Your task to perform on an android device: turn on improve location accuracy Image 0: 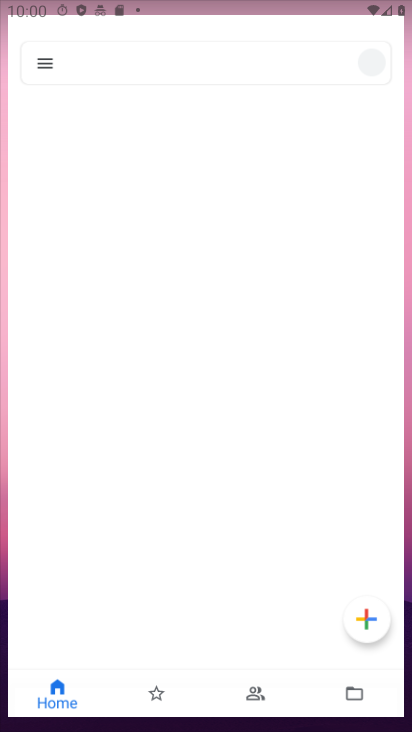
Step 0: drag from (223, 687) to (211, 117)
Your task to perform on an android device: turn on improve location accuracy Image 1: 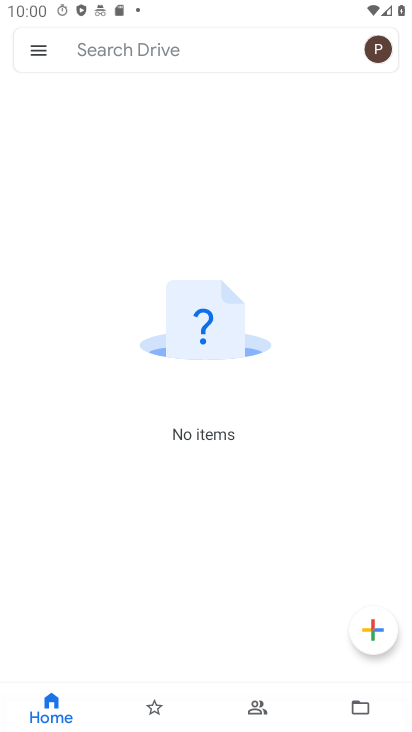
Step 1: click (33, 41)
Your task to perform on an android device: turn on improve location accuracy Image 2: 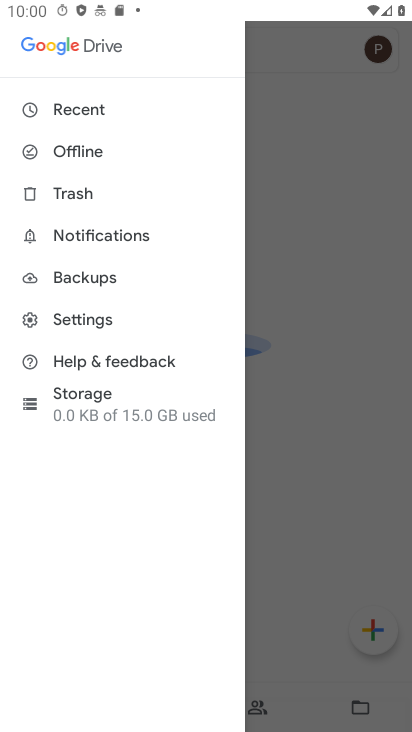
Step 2: press back button
Your task to perform on an android device: turn on improve location accuracy Image 3: 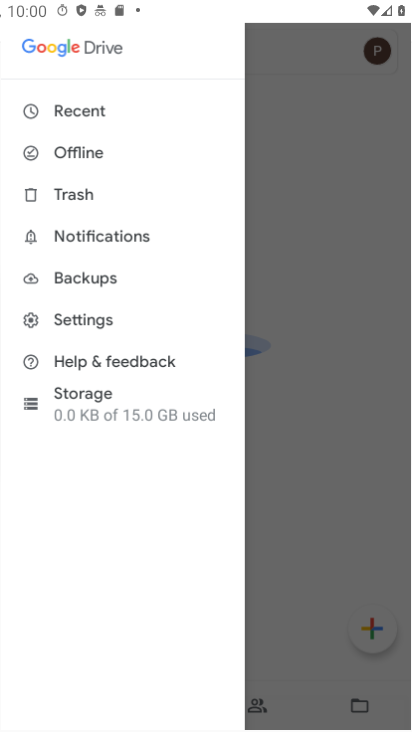
Step 3: press back button
Your task to perform on an android device: turn on improve location accuracy Image 4: 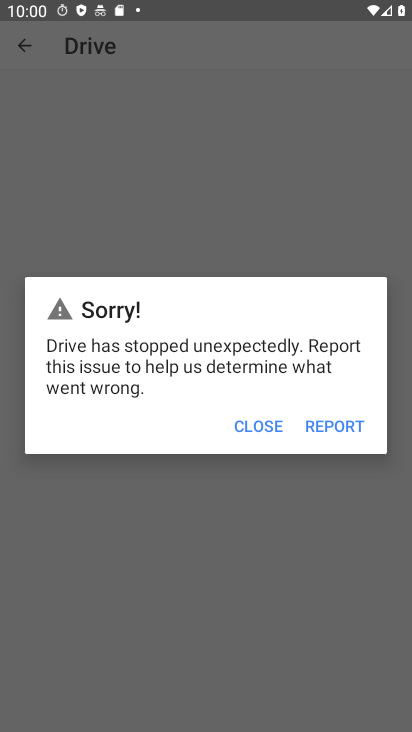
Step 4: press back button
Your task to perform on an android device: turn on improve location accuracy Image 5: 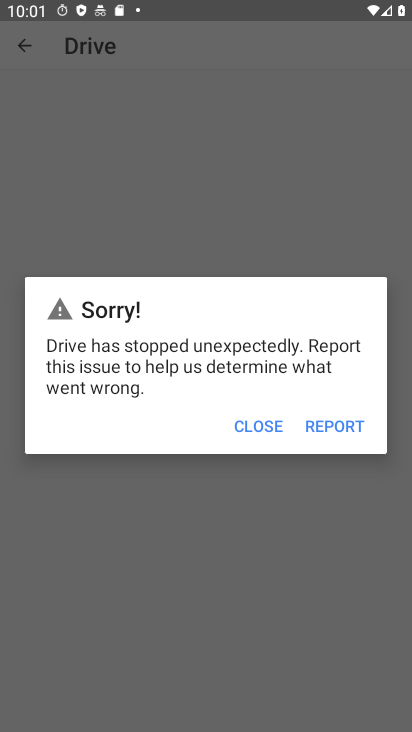
Step 5: click (254, 429)
Your task to perform on an android device: turn on improve location accuracy Image 6: 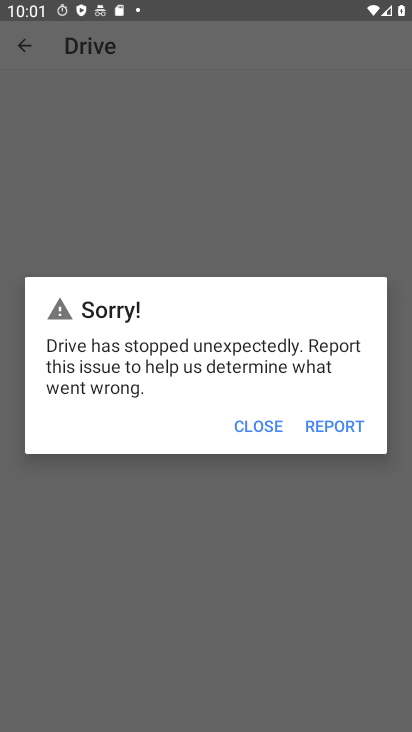
Step 6: click (263, 405)
Your task to perform on an android device: turn on improve location accuracy Image 7: 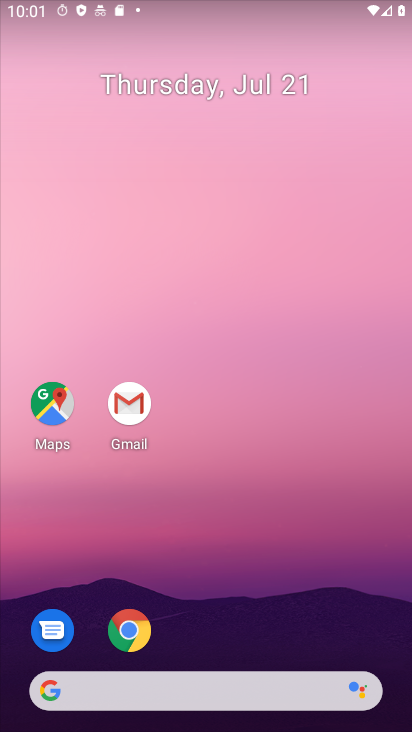
Step 7: drag from (232, 676) to (220, 166)
Your task to perform on an android device: turn on improve location accuracy Image 8: 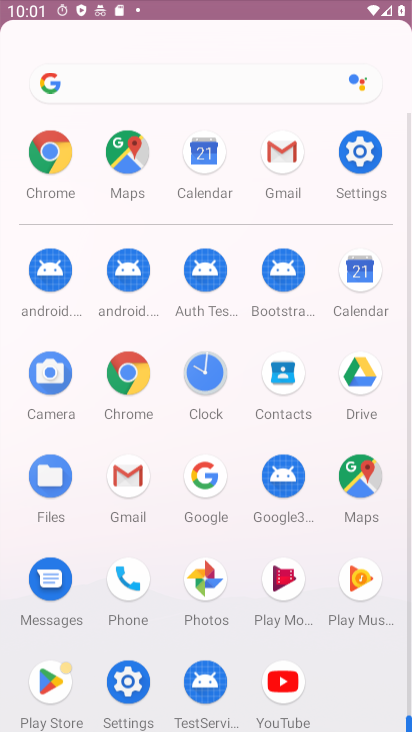
Step 8: drag from (324, 483) to (291, 295)
Your task to perform on an android device: turn on improve location accuracy Image 9: 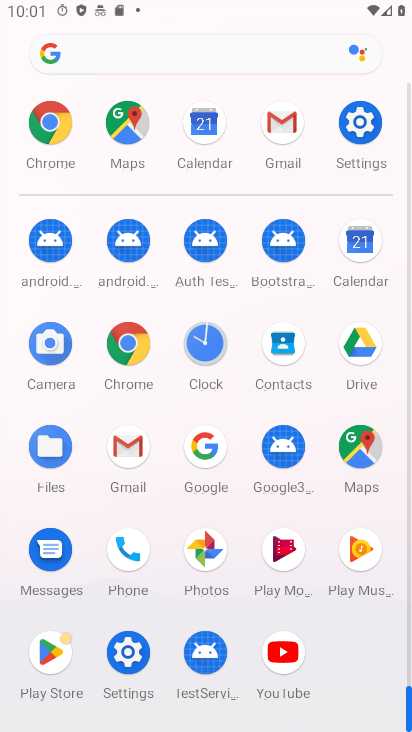
Step 9: click (369, 124)
Your task to perform on an android device: turn on improve location accuracy Image 10: 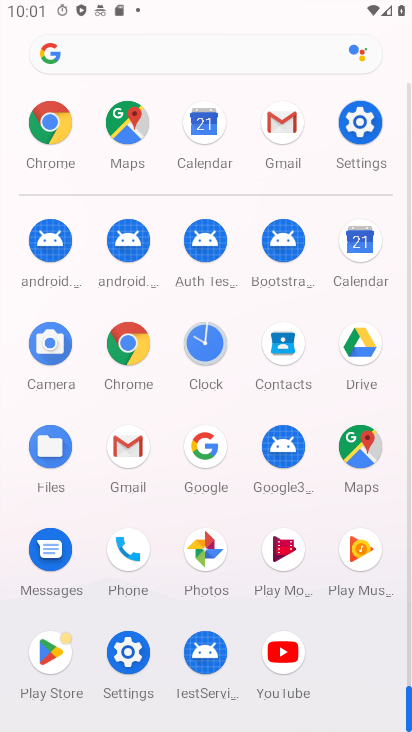
Step 10: click (369, 124)
Your task to perform on an android device: turn on improve location accuracy Image 11: 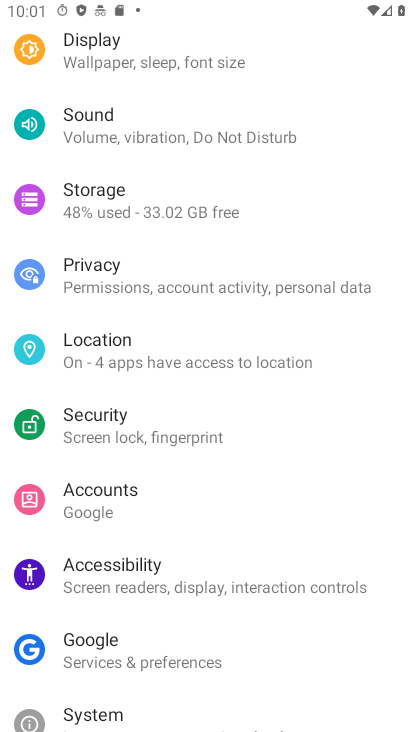
Step 11: drag from (137, 470) to (93, 106)
Your task to perform on an android device: turn on improve location accuracy Image 12: 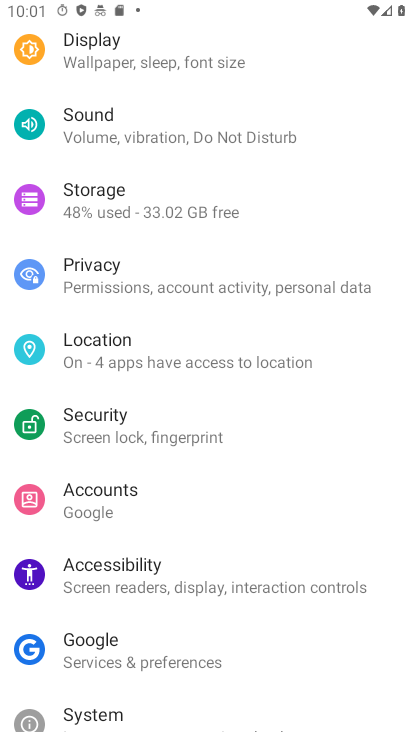
Step 12: click (110, 358)
Your task to perform on an android device: turn on improve location accuracy Image 13: 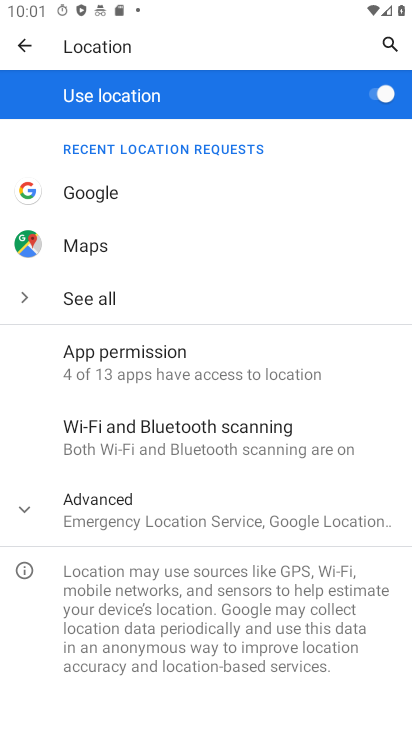
Step 13: click (104, 493)
Your task to perform on an android device: turn on improve location accuracy Image 14: 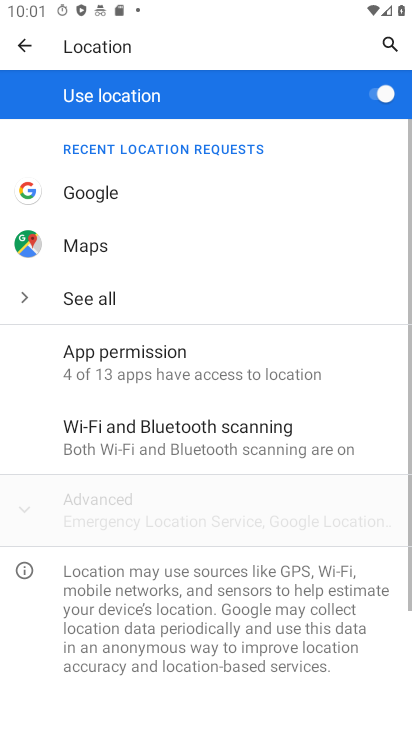
Step 14: click (100, 501)
Your task to perform on an android device: turn on improve location accuracy Image 15: 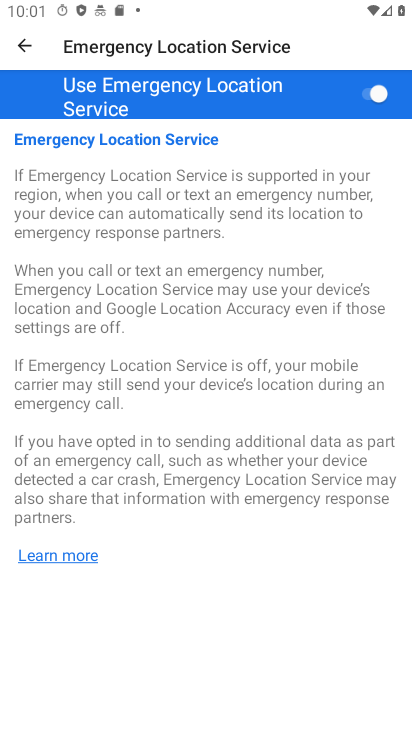
Step 15: task complete